Your task to perform on an android device: stop showing notifications on the lock screen Image 0: 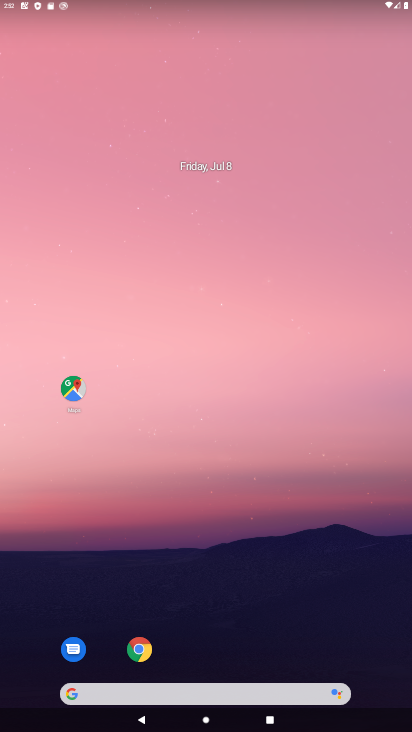
Step 0: drag from (209, 664) to (143, 40)
Your task to perform on an android device: stop showing notifications on the lock screen Image 1: 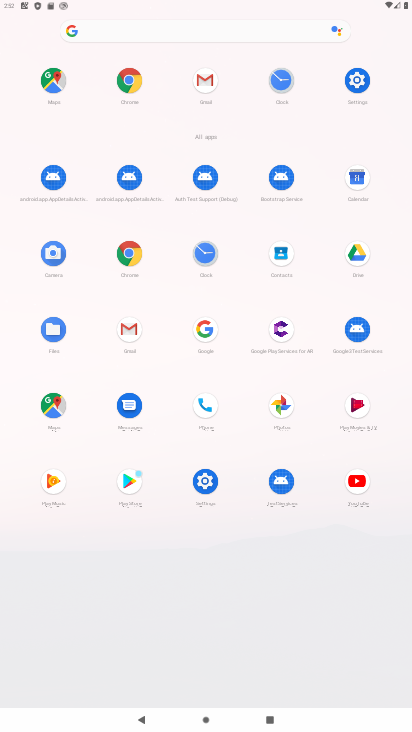
Step 1: click (207, 488)
Your task to perform on an android device: stop showing notifications on the lock screen Image 2: 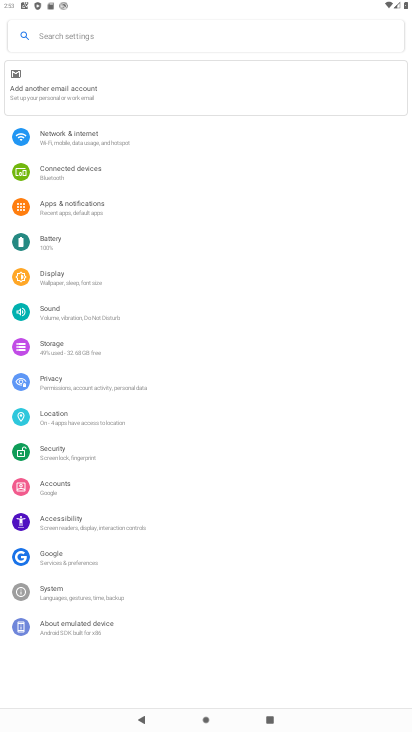
Step 2: click (57, 210)
Your task to perform on an android device: stop showing notifications on the lock screen Image 3: 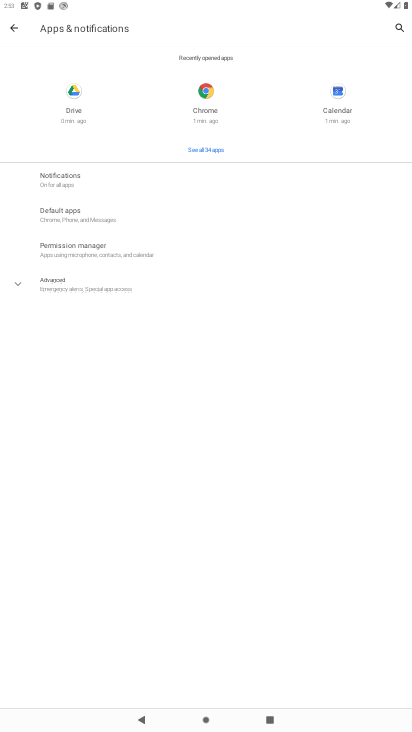
Step 3: click (68, 182)
Your task to perform on an android device: stop showing notifications on the lock screen Image 4: 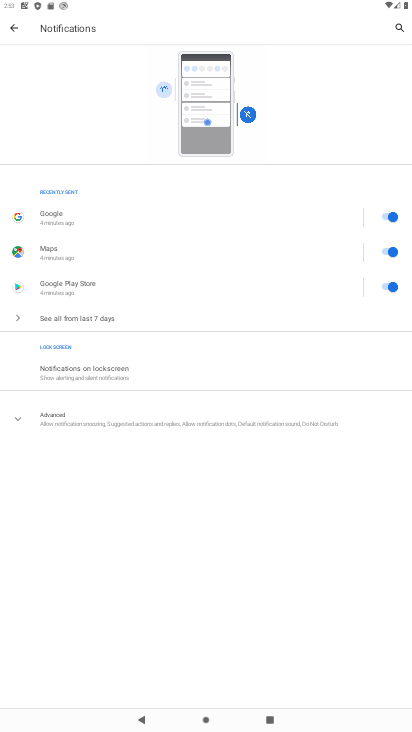
Step 4: click (109, 363)
Your task to perform on an android device: stop showing notifications on the lock screen Image 5: 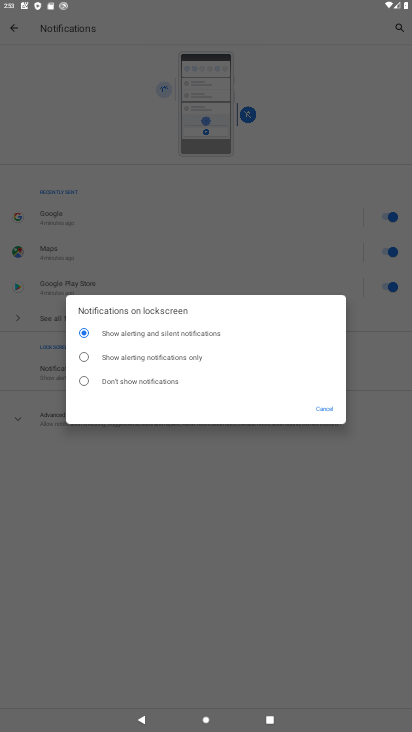
Step 5: click (119, 379)
Your task to perform on an android device: stop showing notifications on the lock screen Image 6: 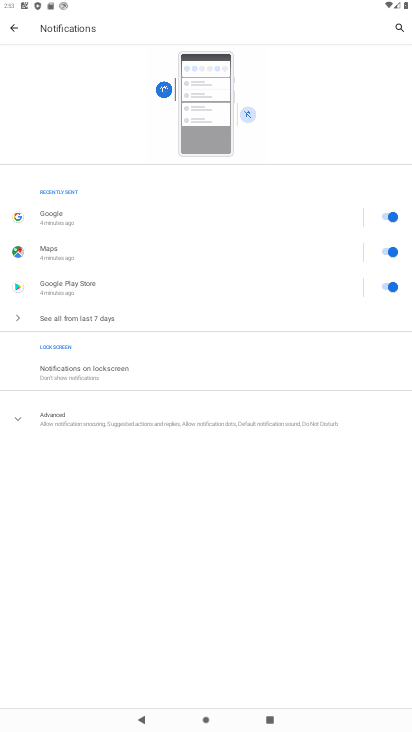
Step 6: task complete